Your task to perform on an android device: see creations saved in the google photos Image 0: 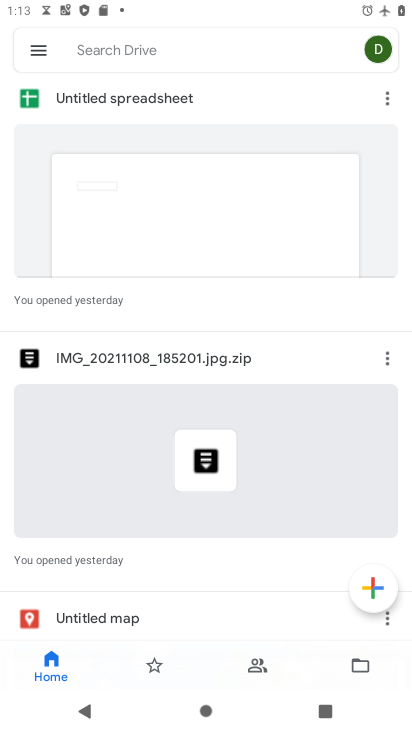
Step 0: press home button
Your task to perform on an android device: see creations saved in the google photos Image 1: 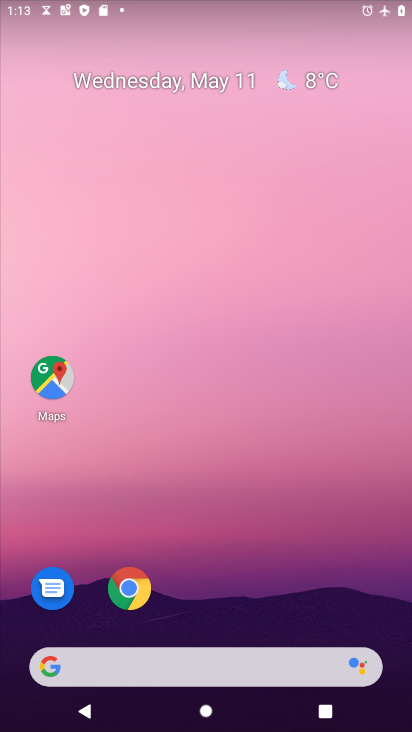
Step 1: drag from (289, 612) to (280, 40)
Your task to perform on an android device: see creations saved in the google photos Image 2: 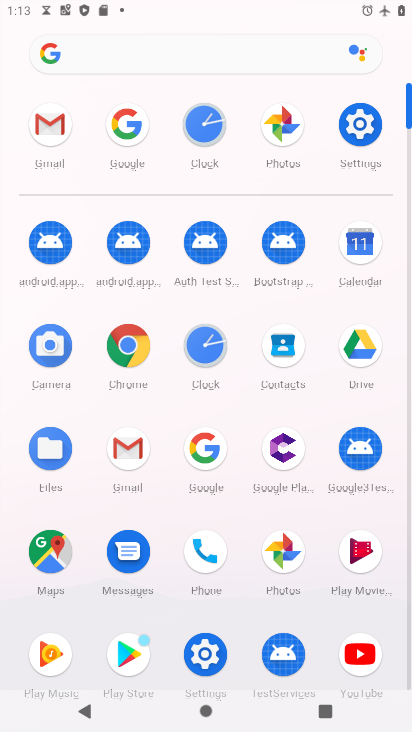
Step 2: click (279, 563)
Your task to perform on an android device: see creations saved in the google photos Image 3: 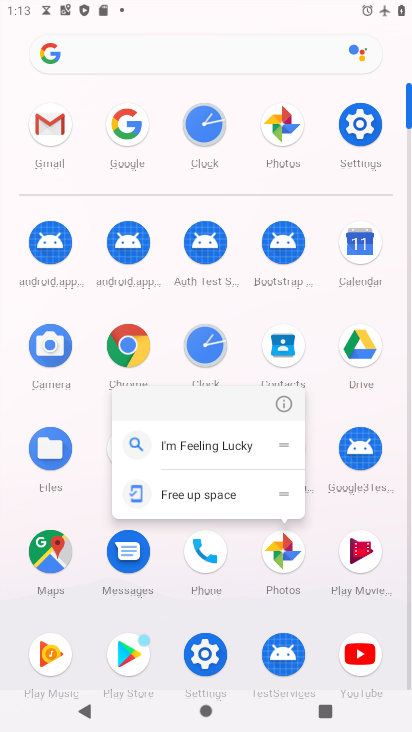
Step 3: click (279, 563)
Your task to perform on an android device: see creations saved in the google photos Image 4: 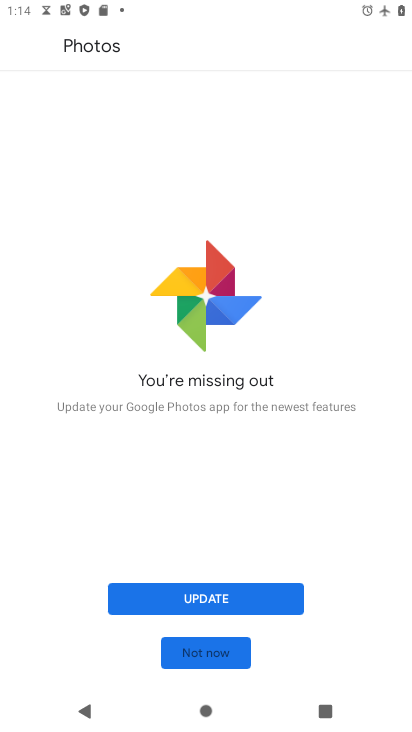
Step 4: click (226, 654)
Your task to perform on an android device: see creations saved in the google photos Image 5: 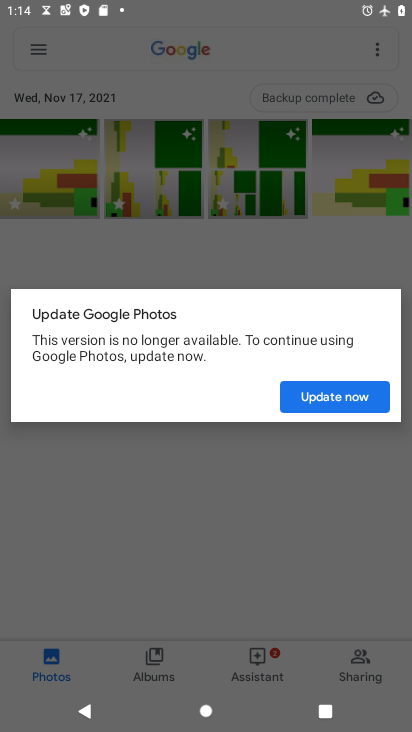
Step 5: click (312, 407)
Your task to perform on an android device: see creations saved in the google photos Image 6: 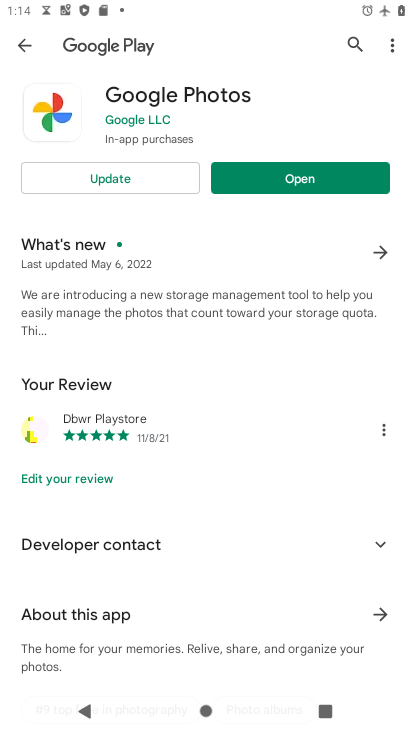
Step 6: click (280, 167)
Your task to perform on an android device: see creations saved in the google photos Image 7: 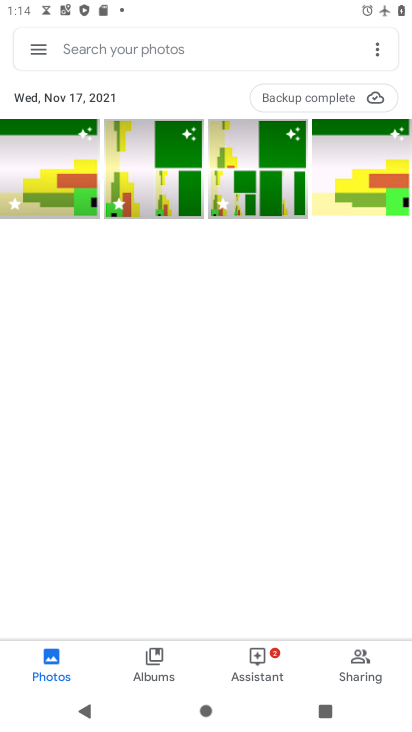
Step 7: click (101, 56)
Your task to perform on an android device: see creations saved in the google photos Image 8: 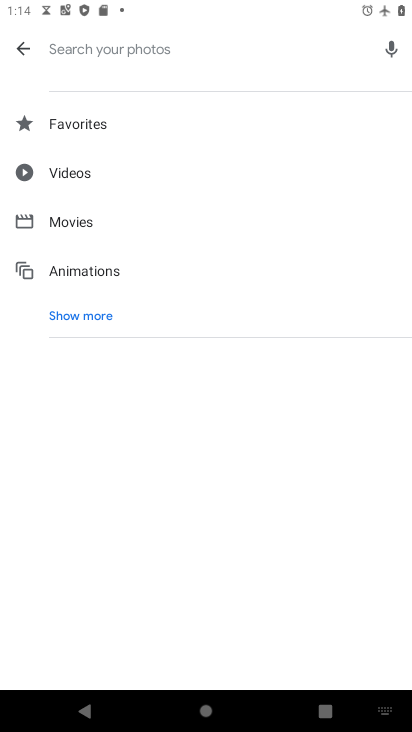
Step 8: click (74, 324)
Your task to perform on an android device: see creations saved in the google photos Image 9: 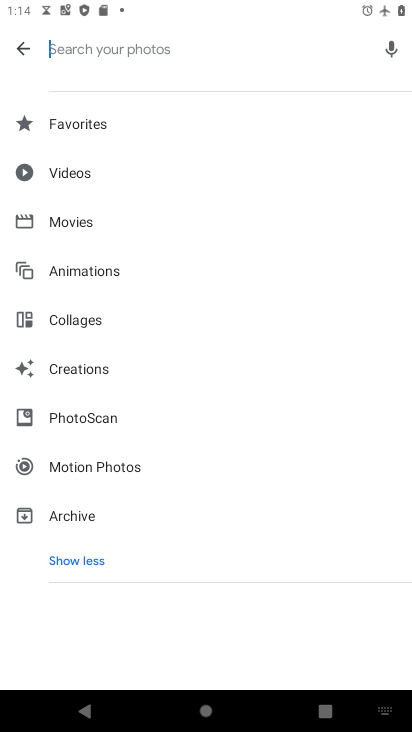
Step 9: click (71, 374)
Your task to perform on an android device: see creations saved in the google photos Image 10: 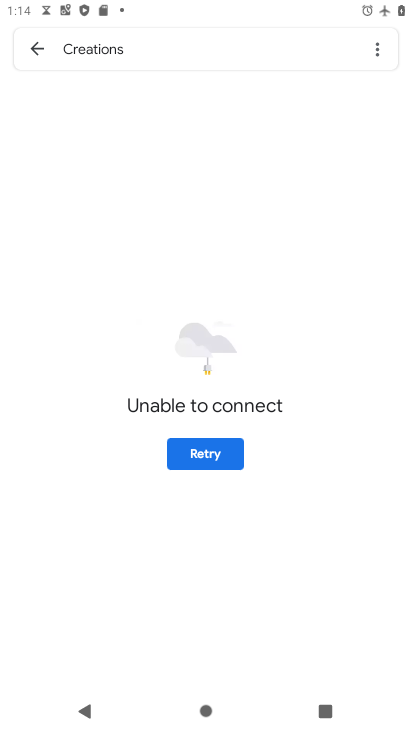
Step 10: task complete